Your task to perform on an android device: toggle javascript in the chrome app Image 0: 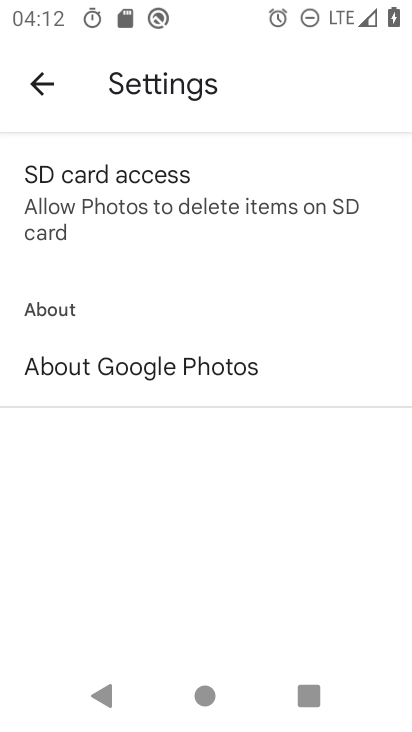
Step 0: press home button
Your task to perform on an android device: toggle javascript in the chrome app Image 1: 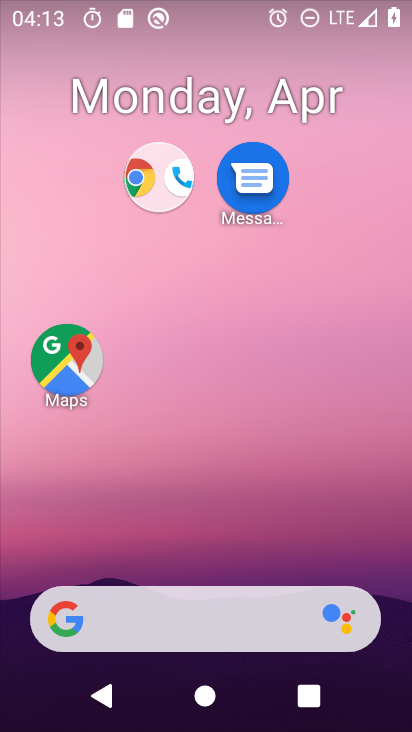
Step 1: drag from (255, 566) to (229, 17)
Your task to perform on an android device: toggle javascript in the chrome app Image 2: 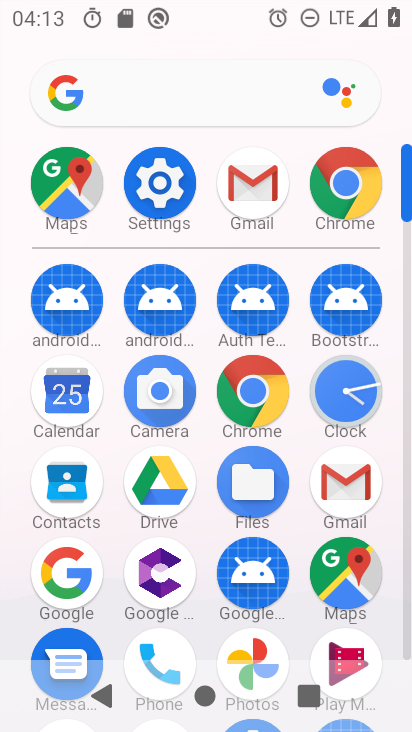
Step 2: click (260, 393)
Your task to perform on an android device: toggle javascript in the chrome app Image 3: 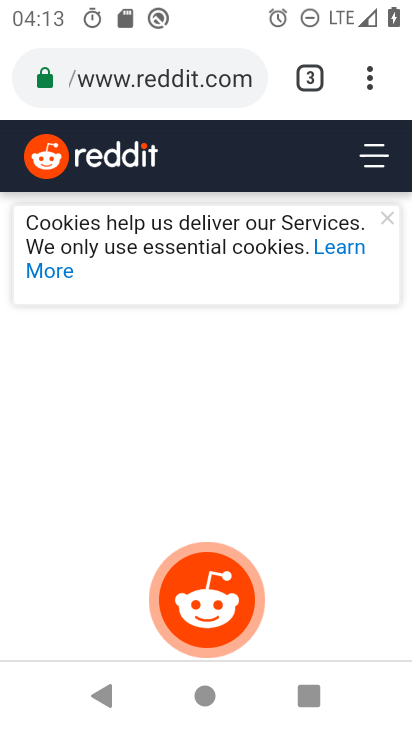
Step 3: drag from (361, 81) to (145, 560)
Your task to perform on an android device: toggle javascript in the chrome app Image 4: 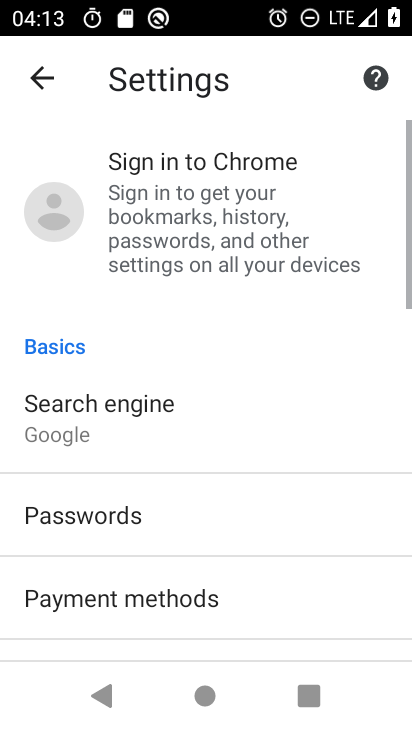
Step 4: drag from (148, 609) to (249, 5)
Your task to perform on an android device: toggle javascript in the chrome app Image 5: 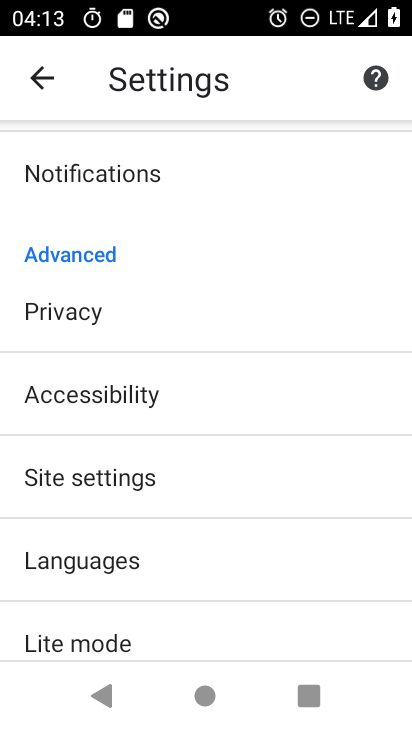
Step 5: drag from (133, 628) to (202, 369)
Your task to perform on an android device: toggle javascript in the chrome app Image 6: 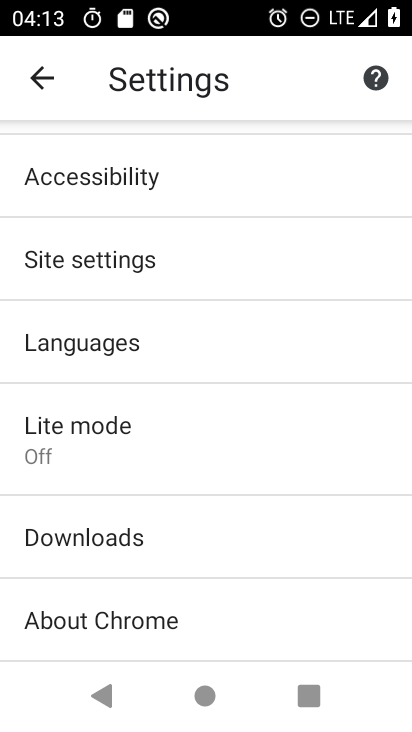
Step 6: click (194, 269)
Your task to perform on an android device: toggle javascript in the chrome app Image 7: 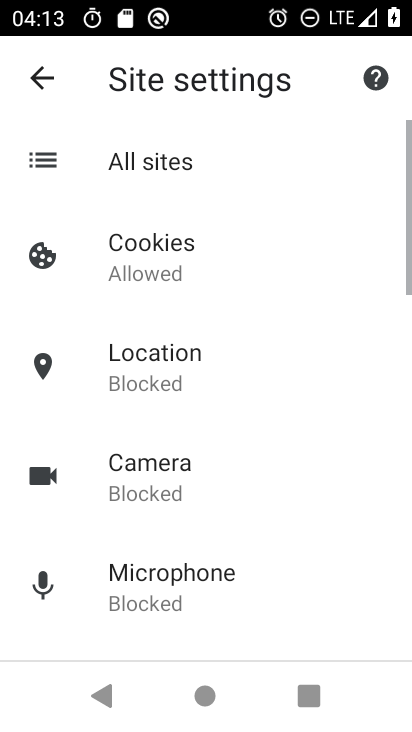
Step 7: drag from (233, 613) to (256, 179)
Your task to perform on an android device: toggle javascript in the chrome app Image 8: 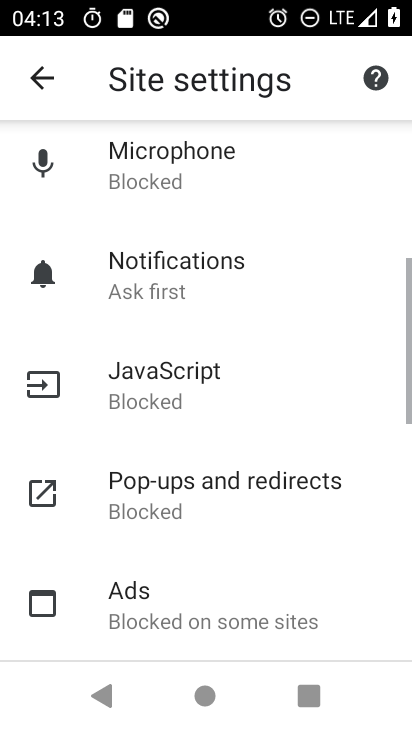
Step 8: click (159, 389)
Your task to perform on an android device: toggle javascript in the chrome app Image 9: 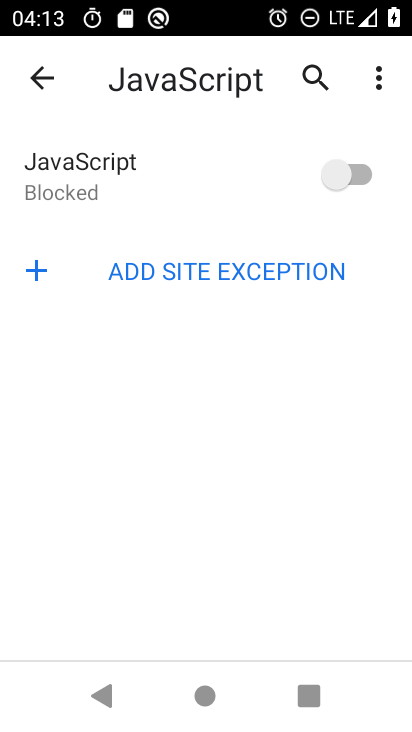
Step 9: click (356, 181)
Your task to perform on an android device: toggle javascript in the chrome app Image 10: 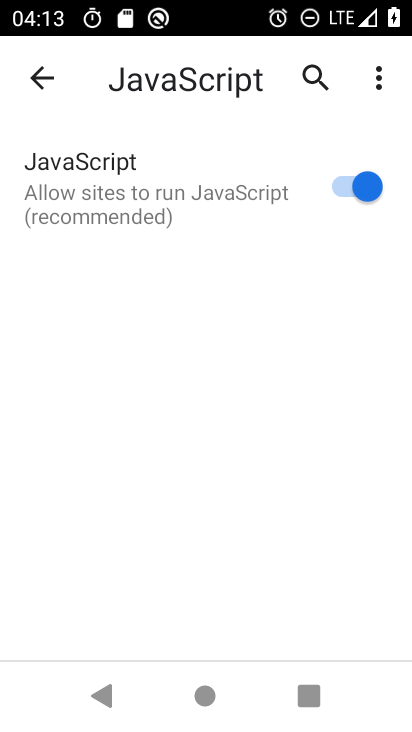
Step 10: task complete